Your task to perform on an android device: uninstall "Google Calendar" Image 0: 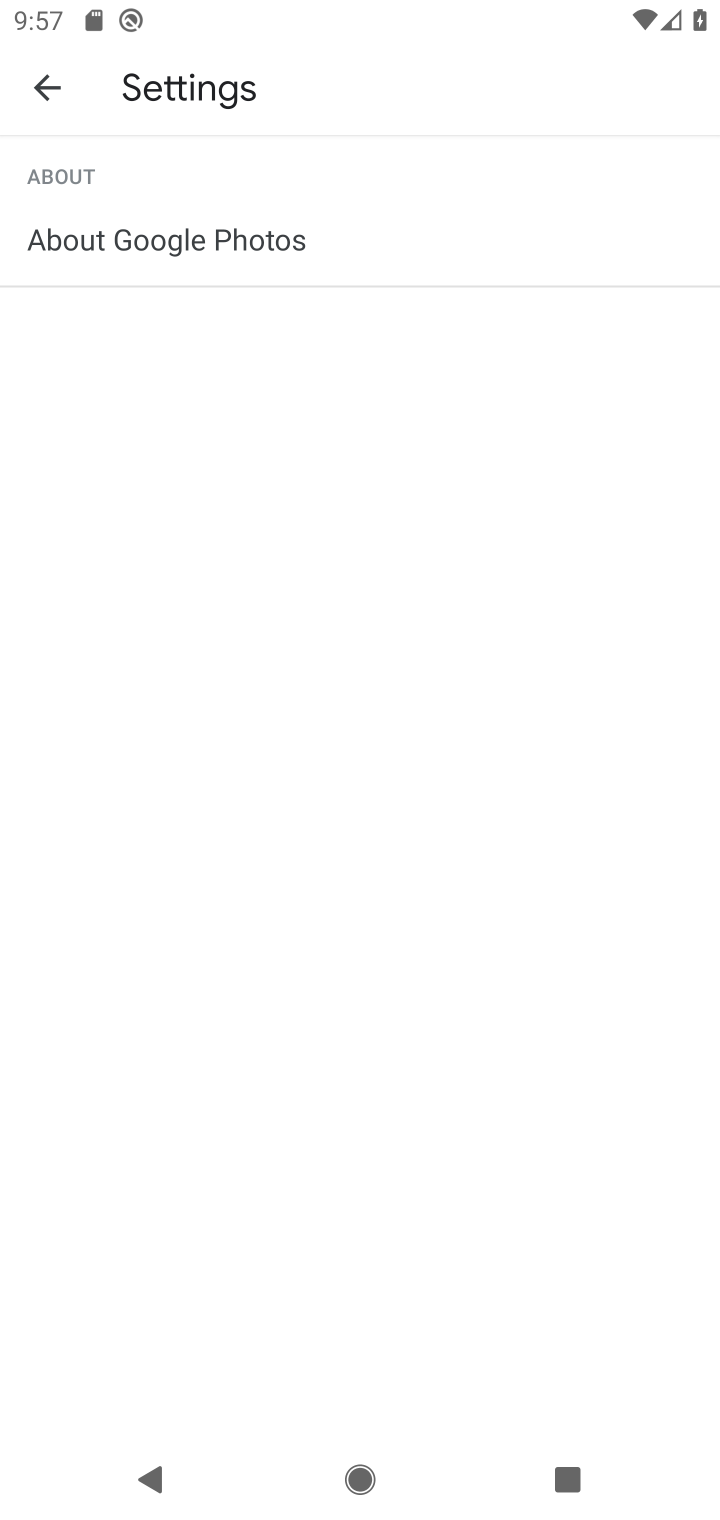
Step 0: press home button
Your task to perform on an android device: uninstall "Google Calendar" Image 1: 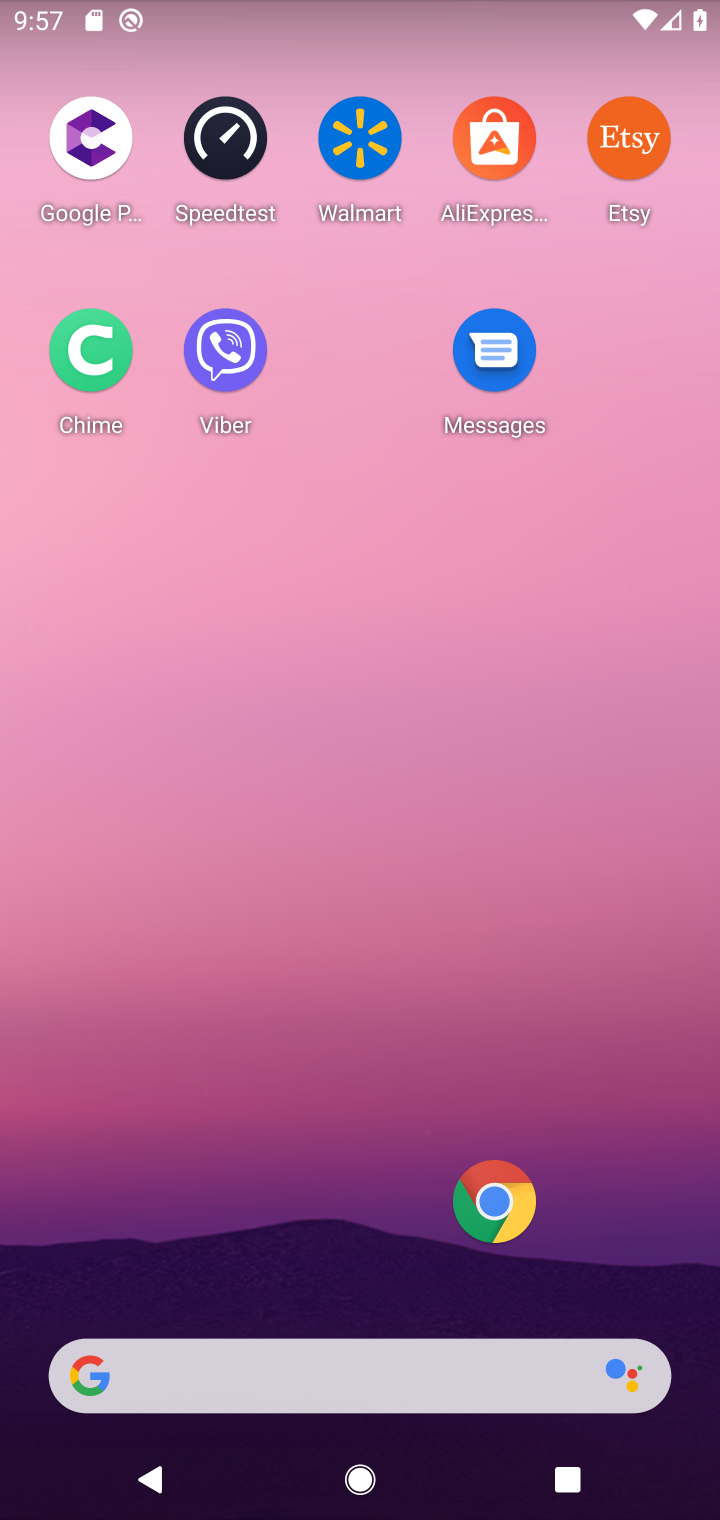
Step 1: drag from (344, 1034) to (328, 453)
Your task to perform on an android device: uninstall "Google Calendar" Image 2: 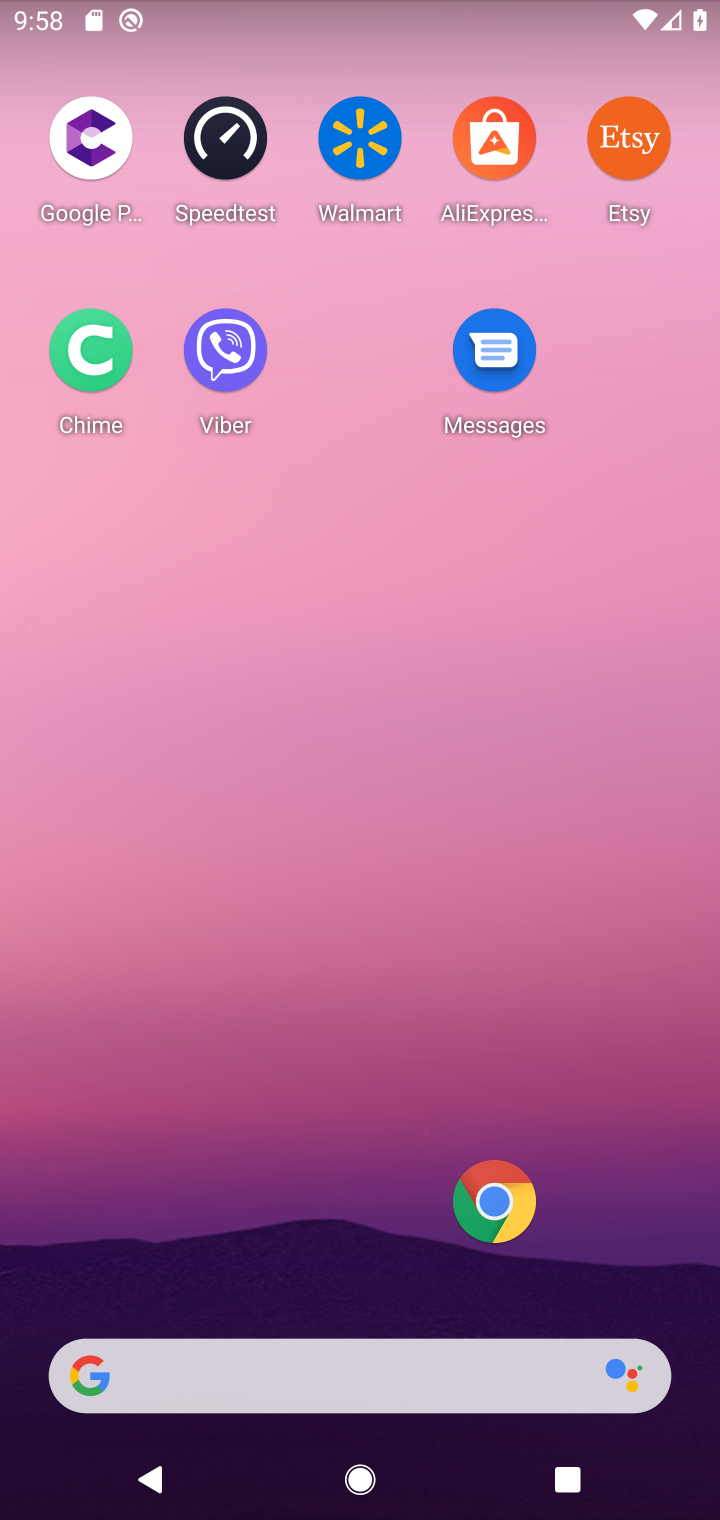
Step 2: drag from (306, 1023) to (141, 513)
Your task to perform on an android device: uninstall "Google Calendar" Image 3: 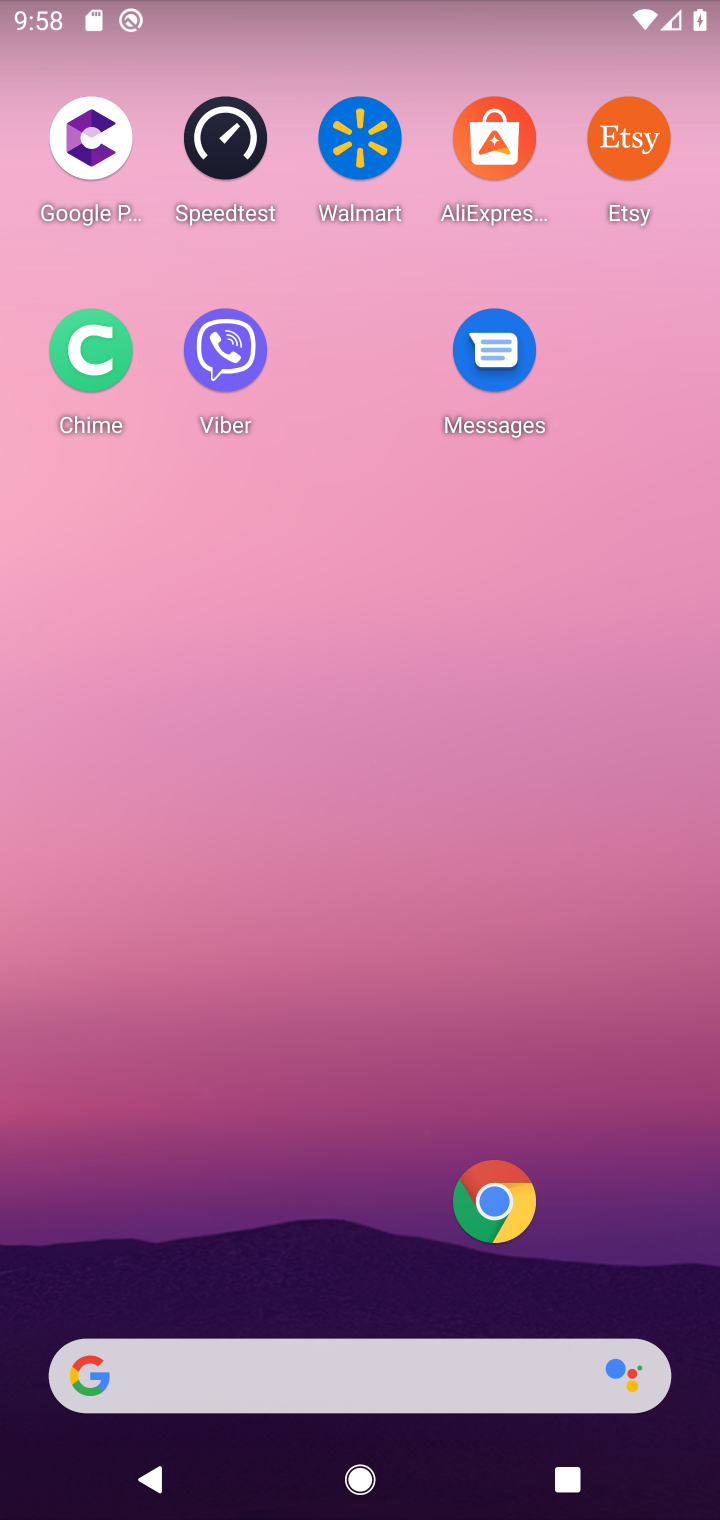
Step 3: drag from (347, 1051) to (375, 465)
Your task to perform on an android device: uninstall "Google Calendar" Image 4: 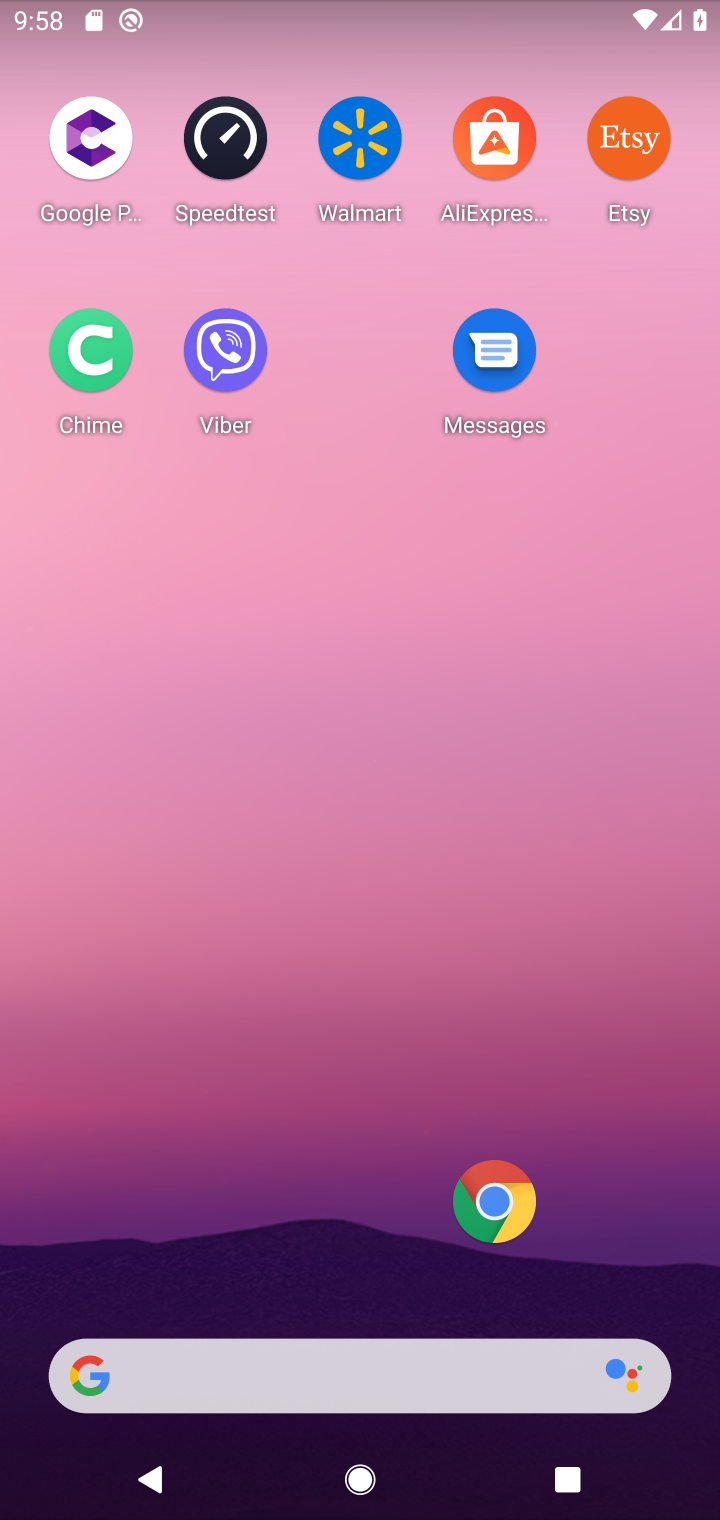
Step 4: drag from (354, 1345) to (382, 249)
Your task to perform on an android device: uninstall "Google Calendar" Image 5: 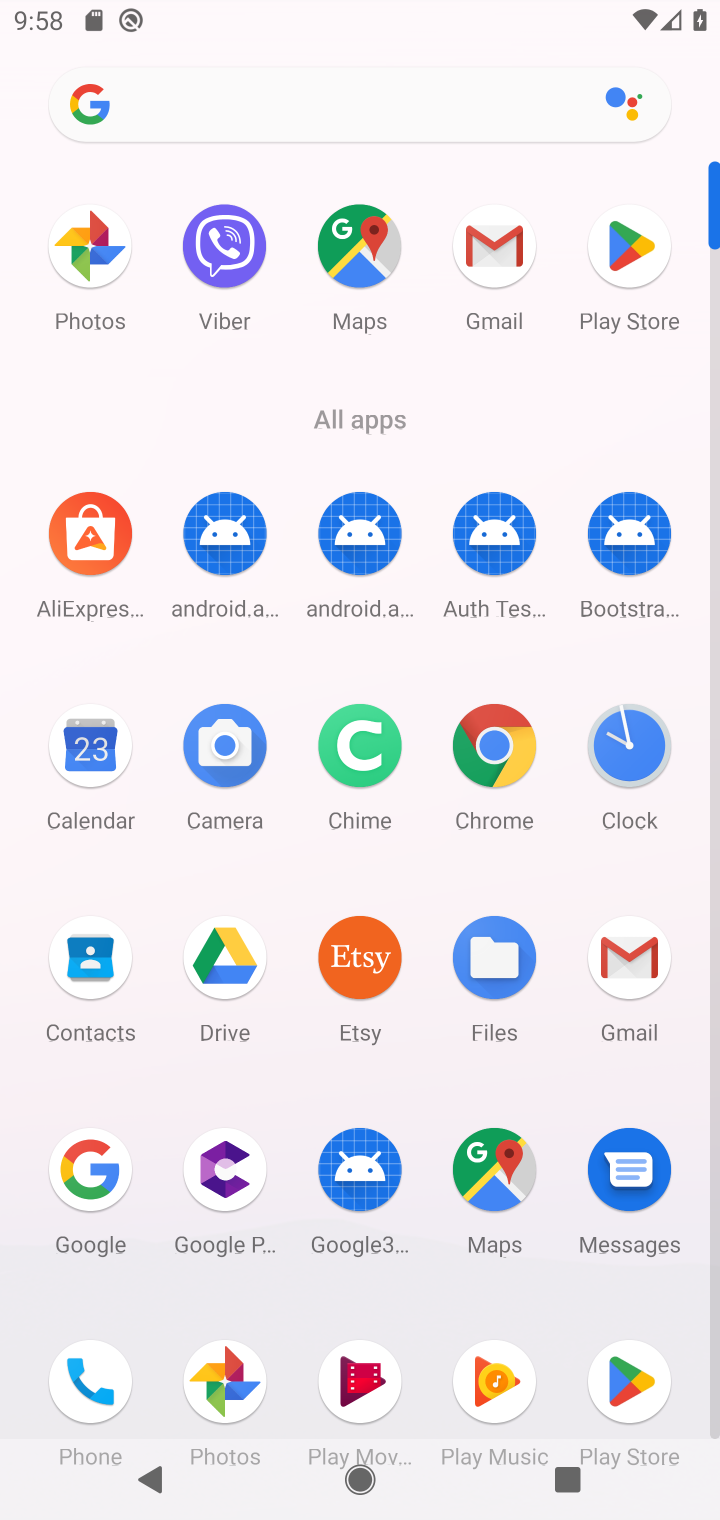
Step 5: click (614, 228)
Your task to perform on an android device: uninstall "Google Calendar" Image 6: 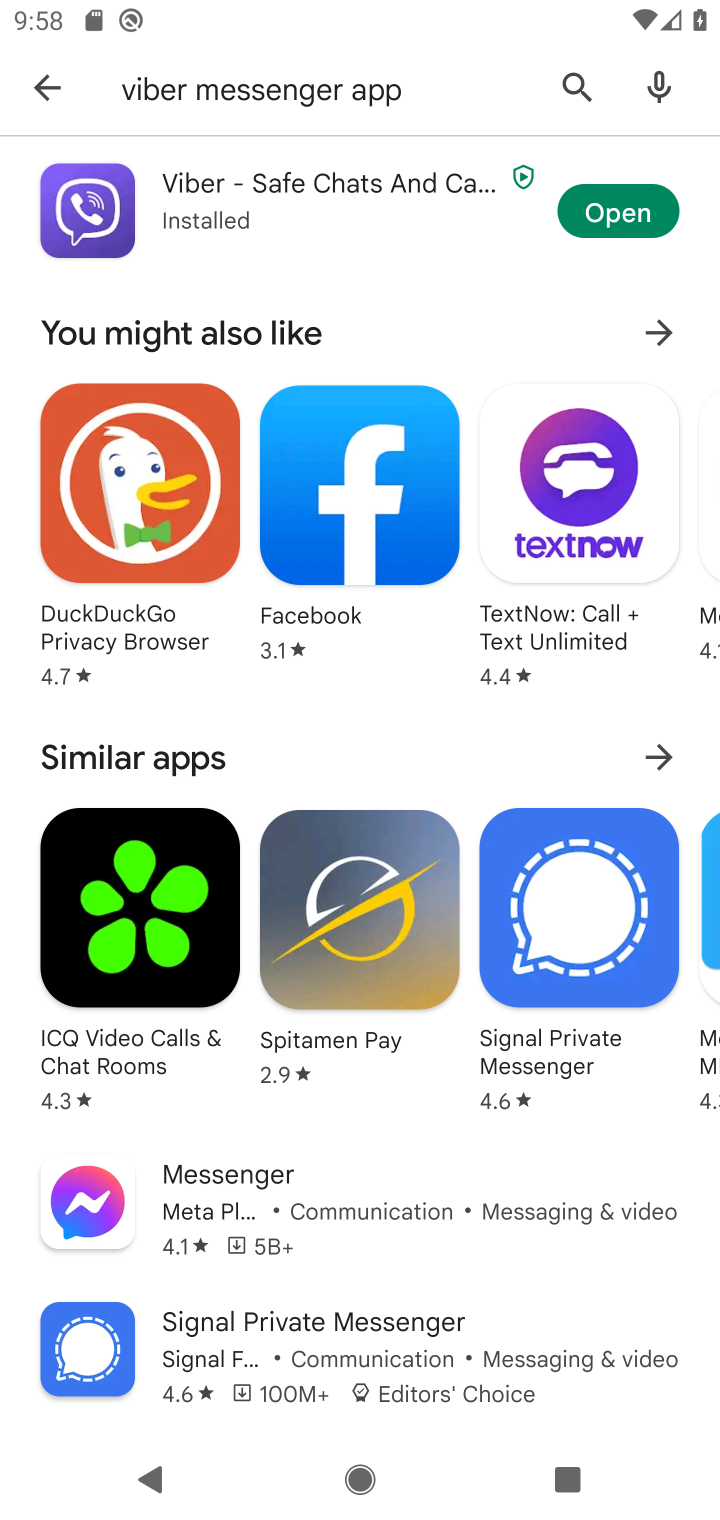
Step 6: click (66, 72)
Your task to perform on an android device: uninstall "Google Calendar" Image 7: 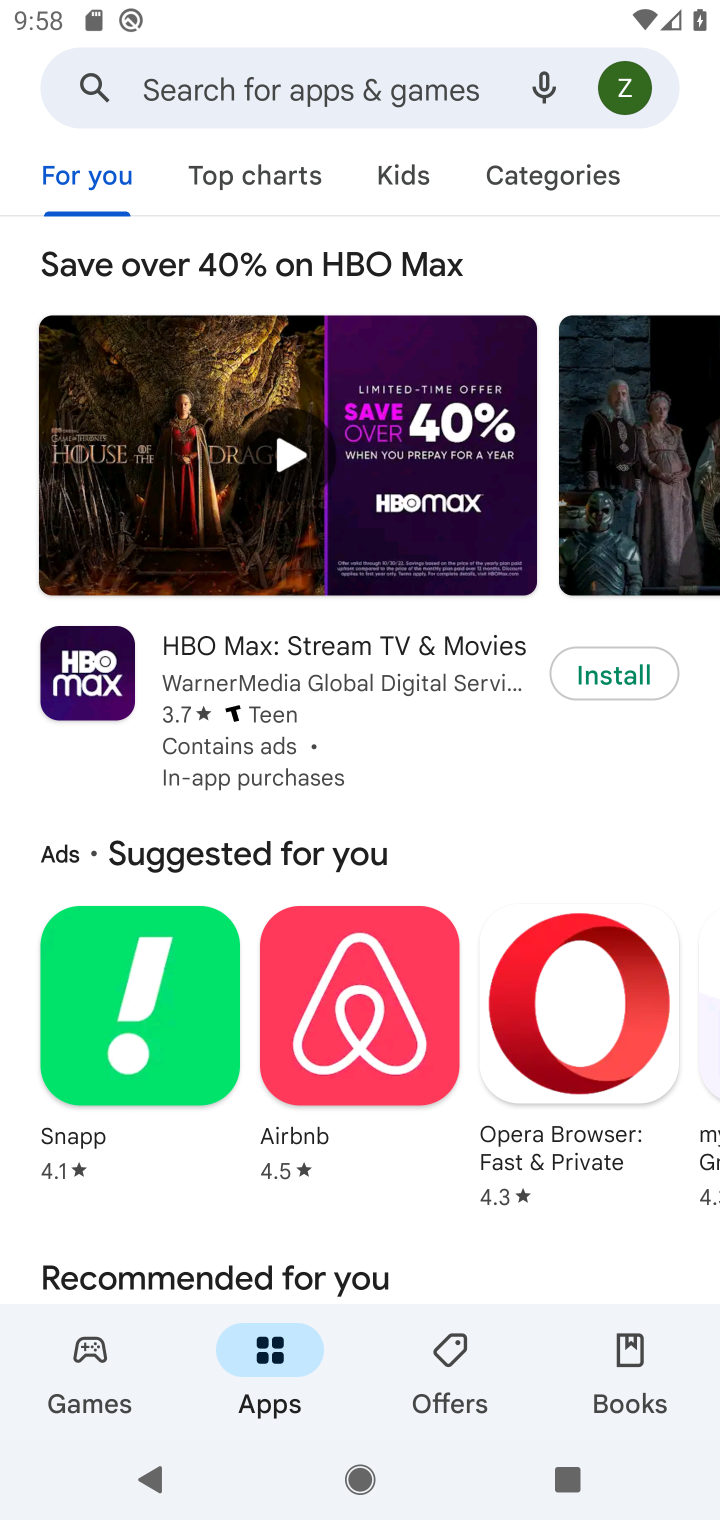
Step 7: click (357, 80)
Your task to perform on an android device: uninstall "Google Calendar" Image 8: 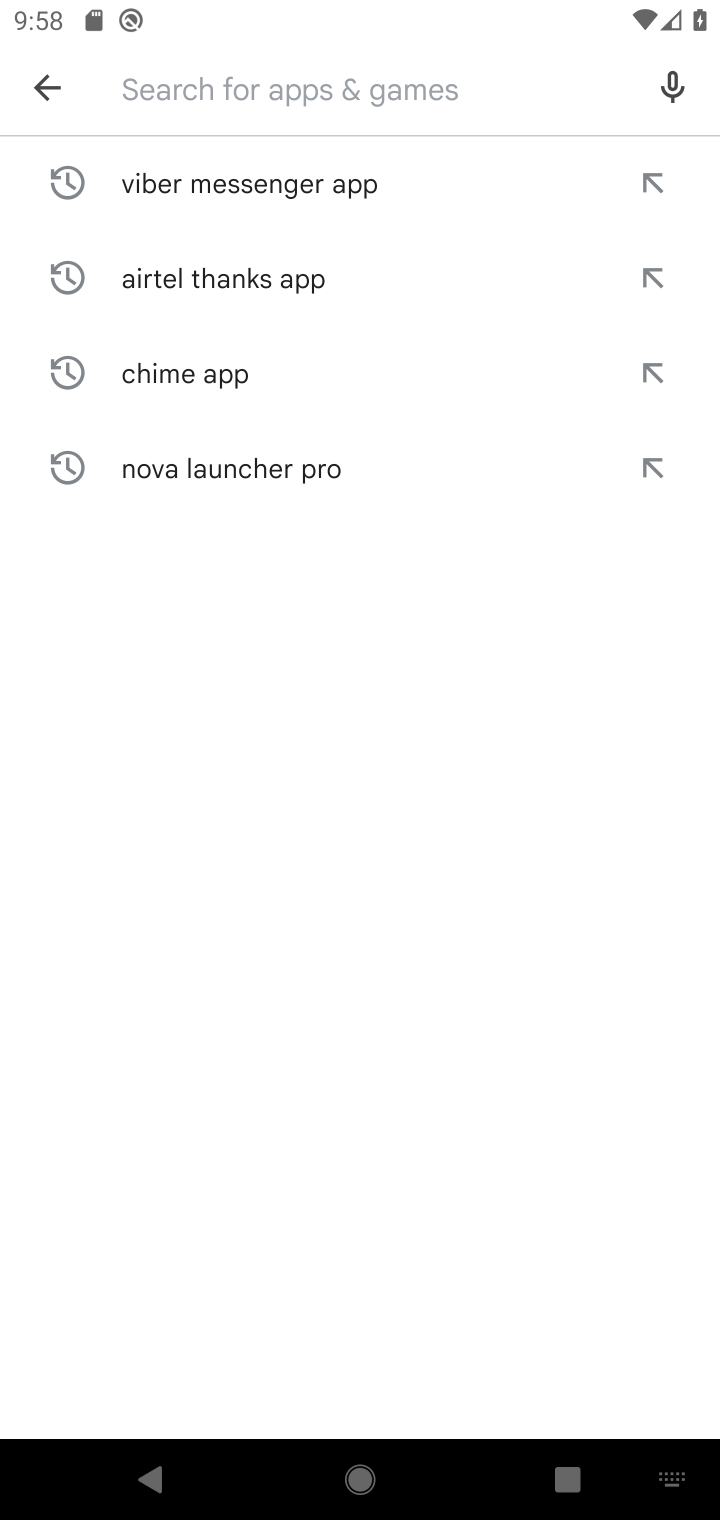
Step 8: type "Google Calendar "
Your task to perform on an android device: uninstall "Google Calendar" Image 9: 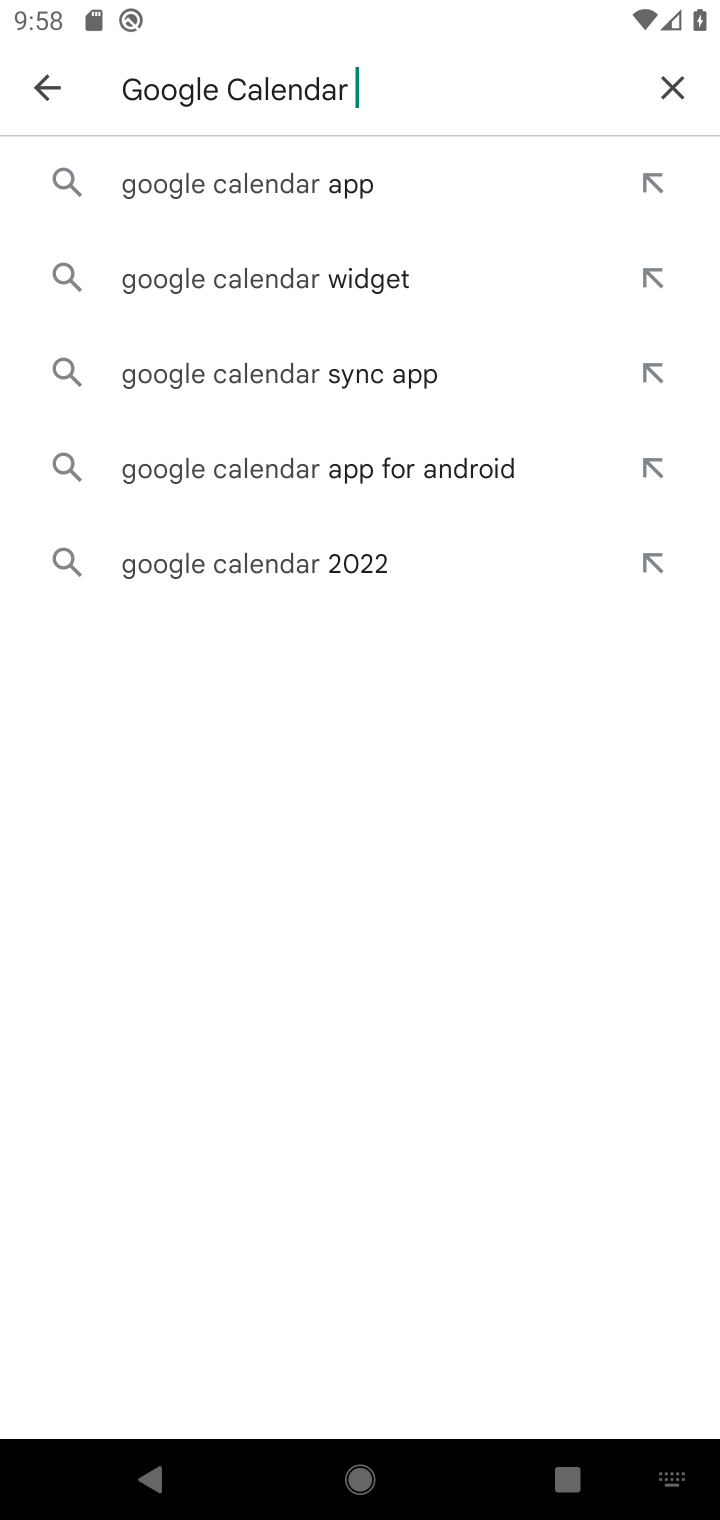
Step 9: click (208, 169)
Your task to perform on an android device: uninstall "Google Calendar" Image 10: 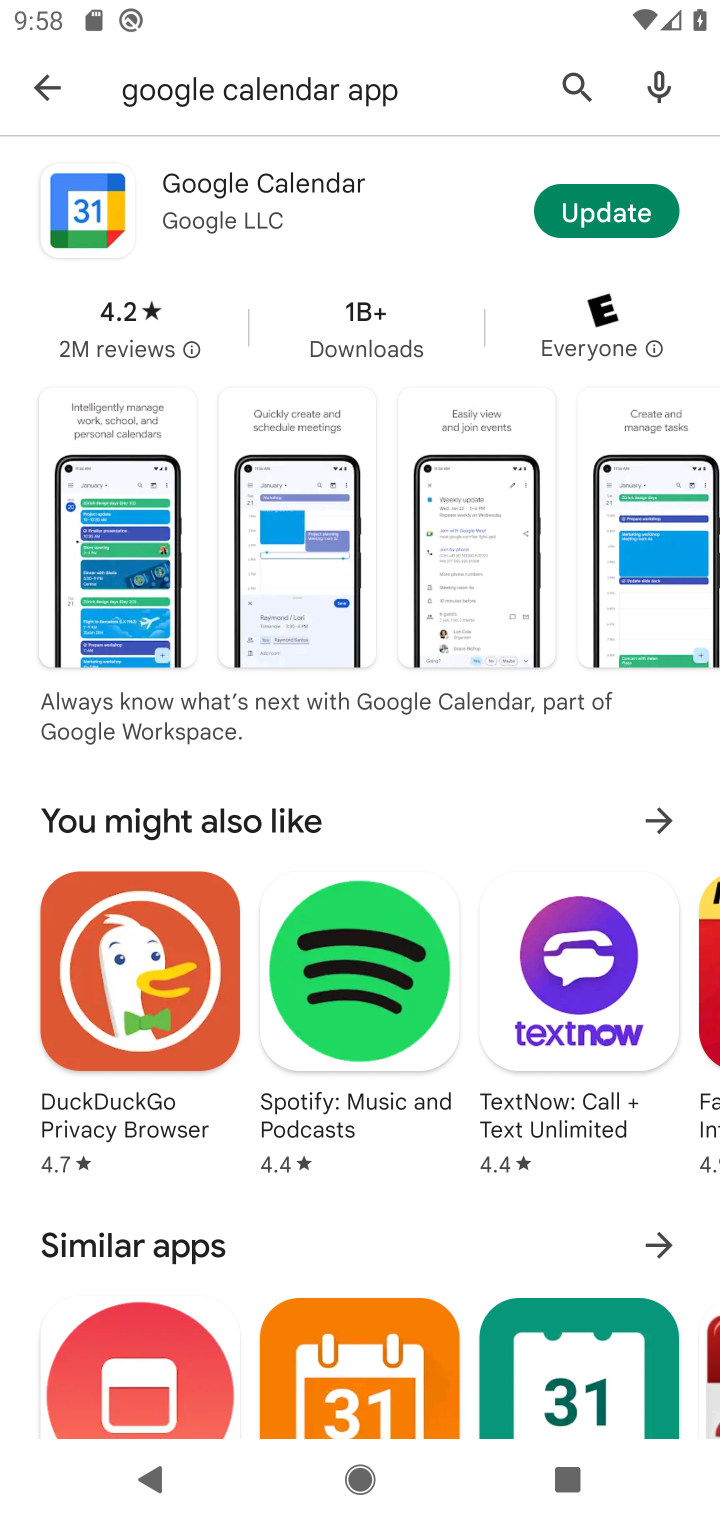
Step 10: click (246, 189)
Your task to perform on an android device: uninstall "Google Calendar" Image 11: 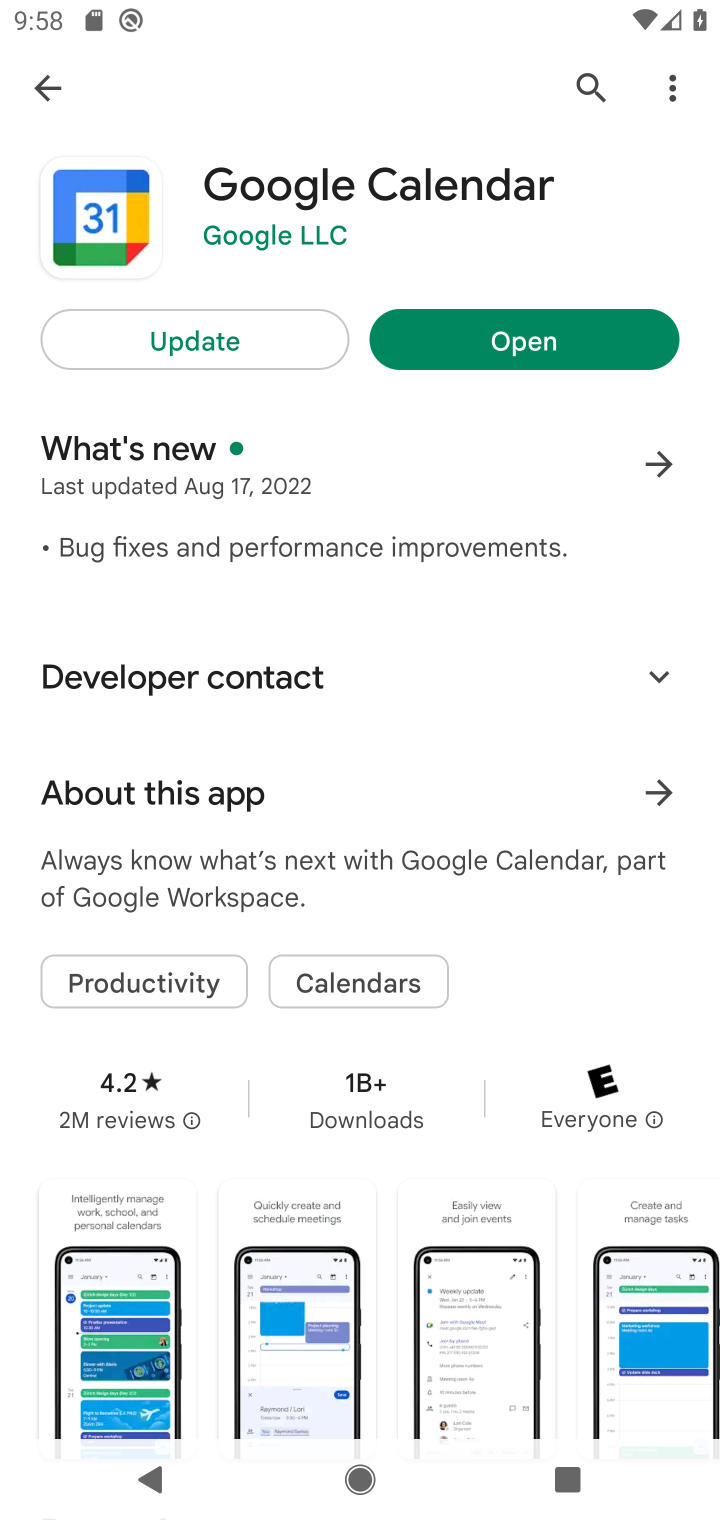
Step 11: click (212, 344)
Your task to perform on an android device: uninstall "Google Calendar" Image 12: 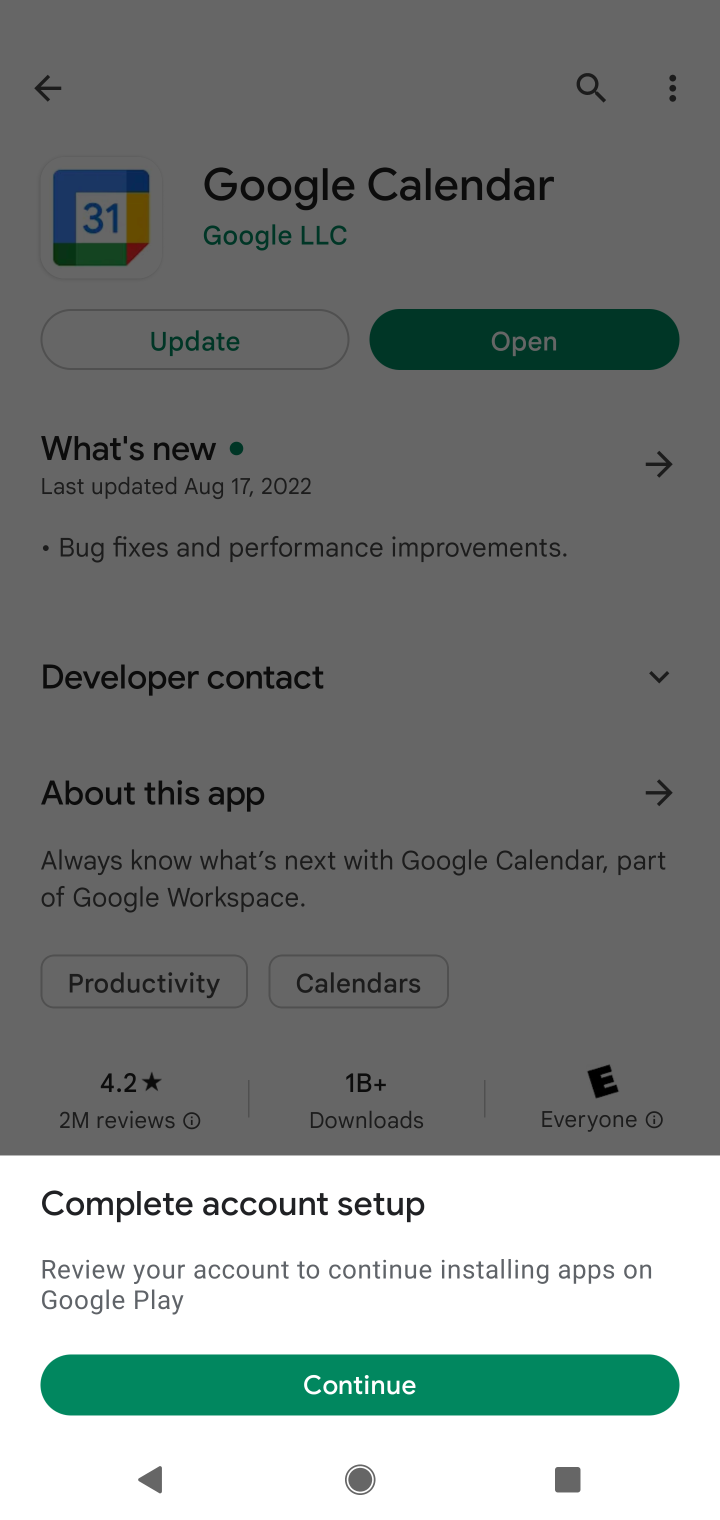
Step 12: task complete